Your task to perform on an android device: Open network settings Image 0: 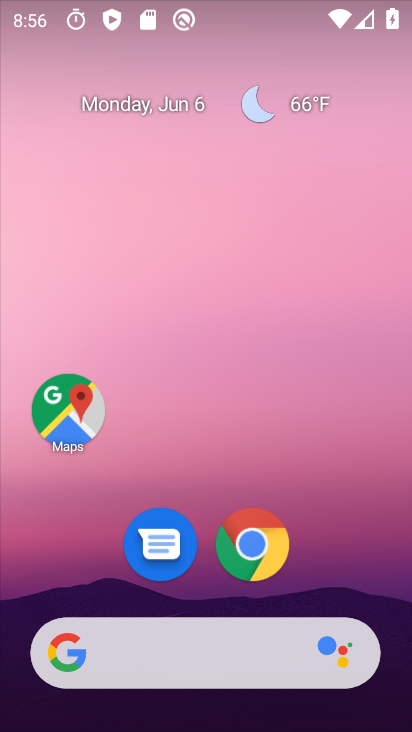
Step 0: drag from (390, 584) to (279, 164)
Your task to perform on an android device: Open network settings Image 1: 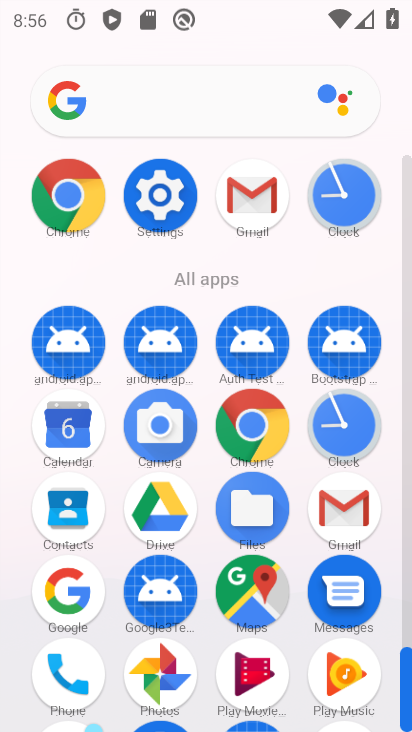
Step 1: click (172, 204)
Your task to perform on an android device: Open network settings Image 2: 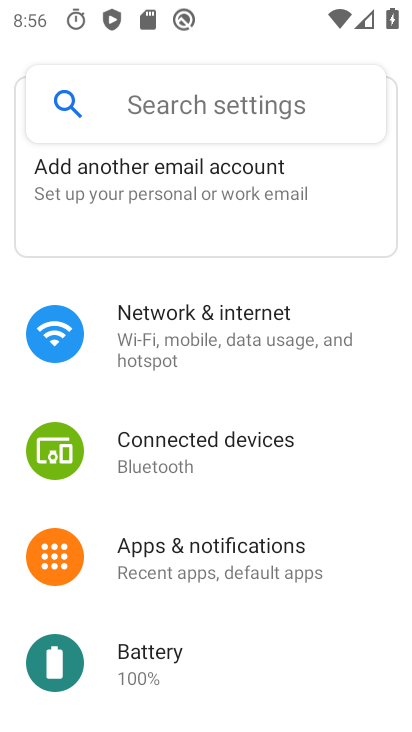
Step 2: click (209, 311)
Your task to perform on an android device: Open network settings Image 3: 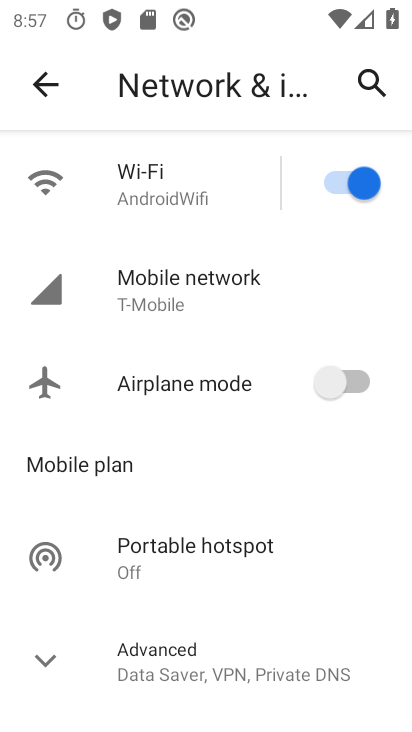
Step 3: task complete